Your task to perform on an android device: turn on airplane mode Image 0: 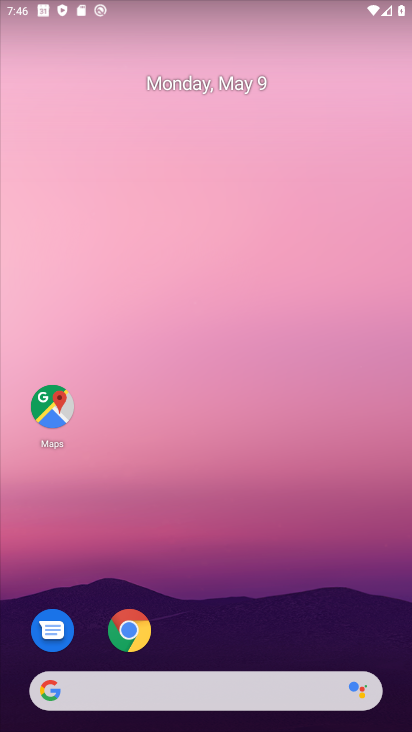
Step 0: press home button
Your task to perform on an android device: turn on airplane mode Image 1: 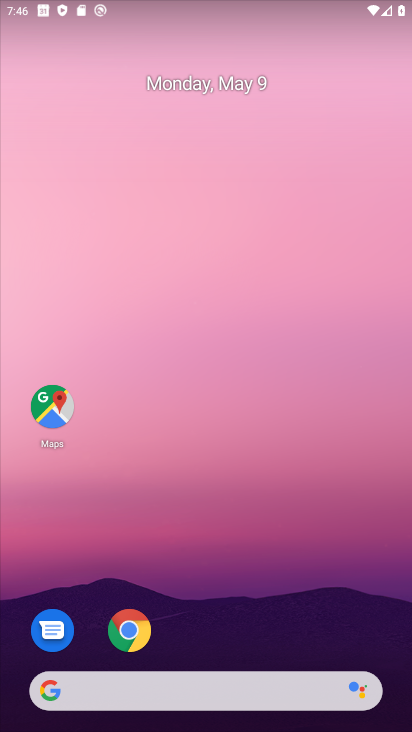
Step 1: drag from (299, 581) to (304, 134)
Your task to perform on an android device: turn on airplane mode Image 2: 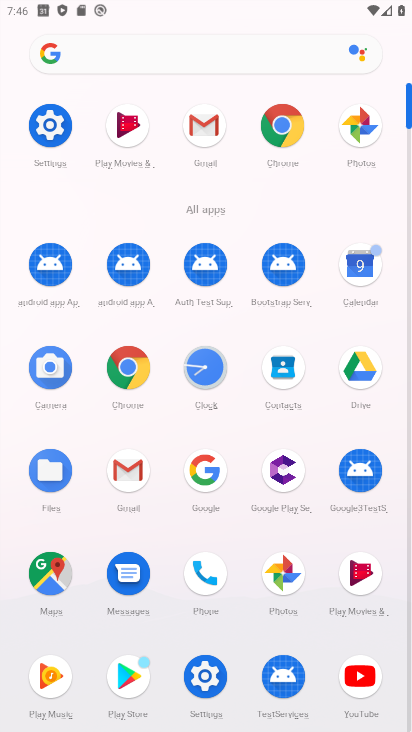
Step 2: click (204, 687)
Your task to perform on an android device: turn on airplane mode Image 3: 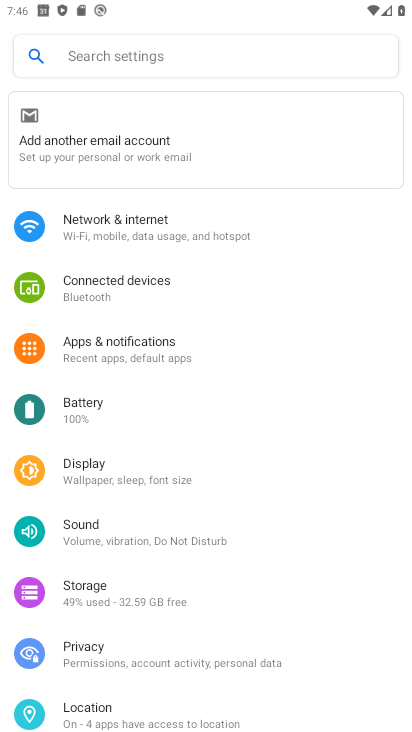
Step 3: click (177, 236)
Your task to perform on an android device: turn on airplane mode Image 4: 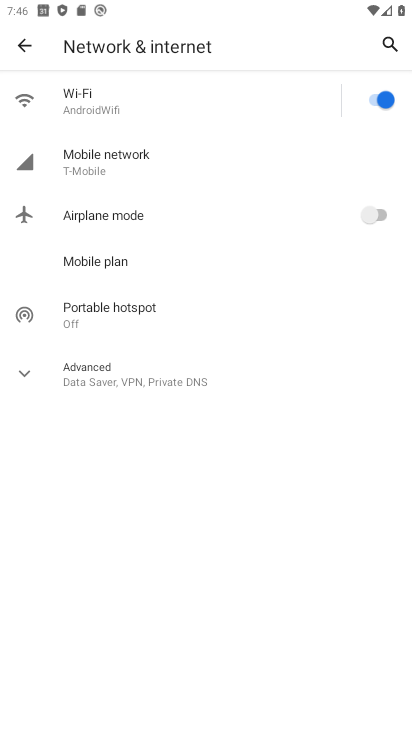
Step 4: click (384, 215)
Your task to perform on an android device: turn on airplane mode Image 5: 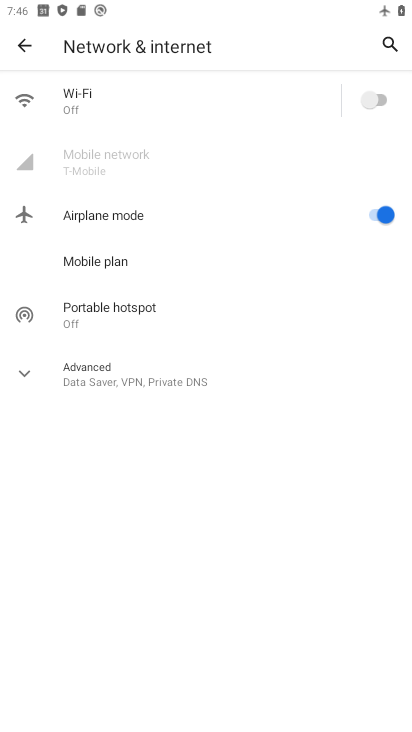
Step 5: task complete